Your task to perform on an android device: open app "DoorDash - Dasher" Image 0: 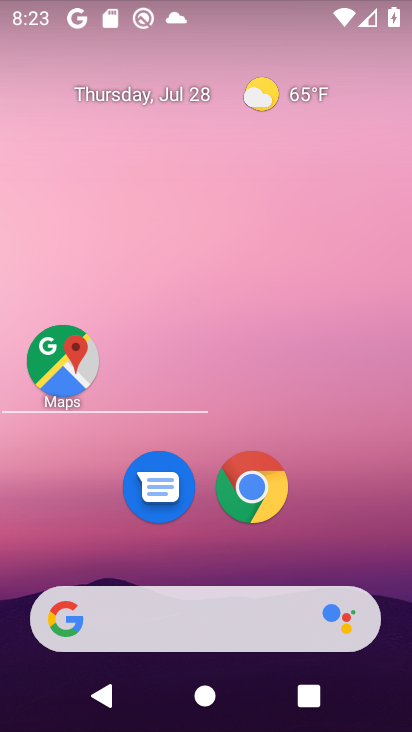
Step 0: drag from (140, 178) to (187, 138)
Your task to perform on an android device: open app "DoorDash - Dasher" Image 1: 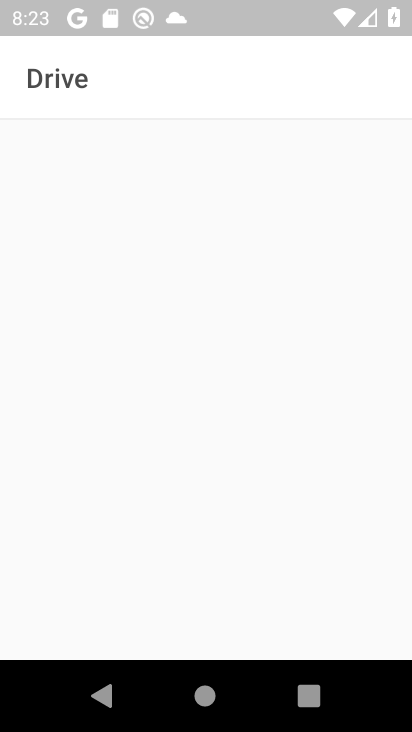
Step 1: drag from (233, 520) to (191, 158)
Your task to perform on an android device: open app "DoorDash - Dasher" Image 2: 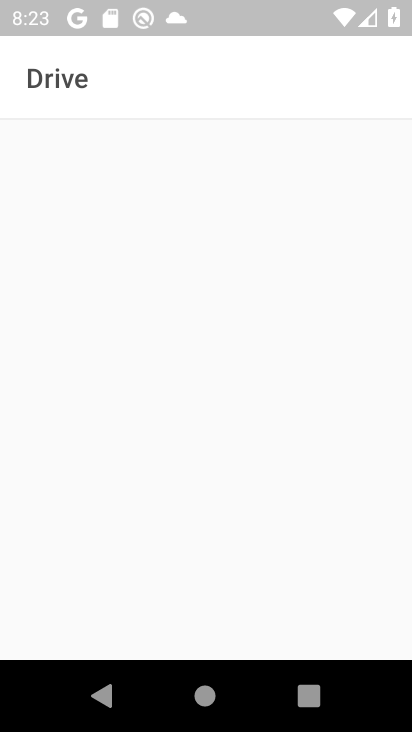
Step 2: press back button
Your task to perform on an android device: open app "DoorDash - Dasher" Image 3: 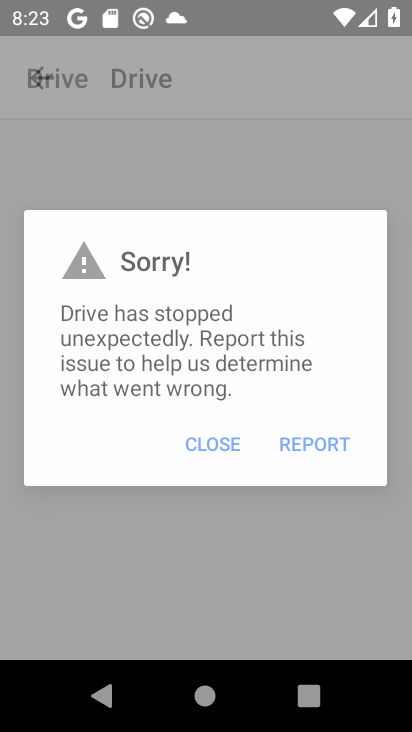
Step 3: press home button
Your task to perform on an android device: open app "DoorDash - Dasher" Image 4: 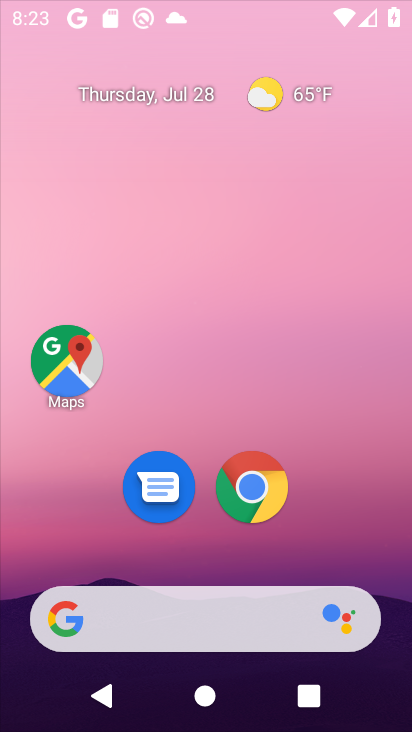
Step 4: click (218, 437)
Your task to perform on an android device: open app "DoorDash - Dasher" Image 5: 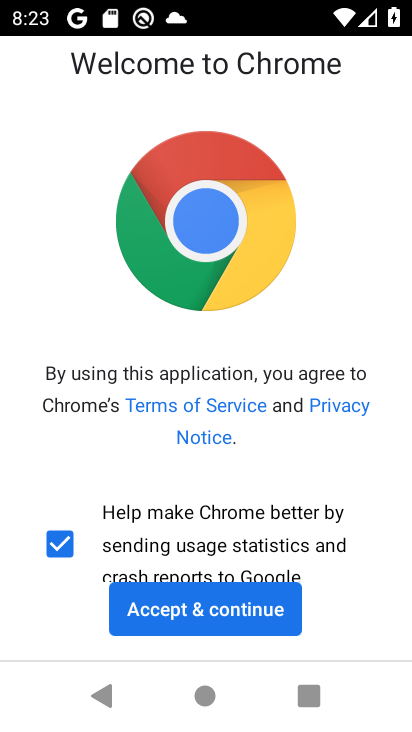
Step 5: click (241, 607)
Your task to perform on an android device: open app "DoorDash - Dasher" Image 6: 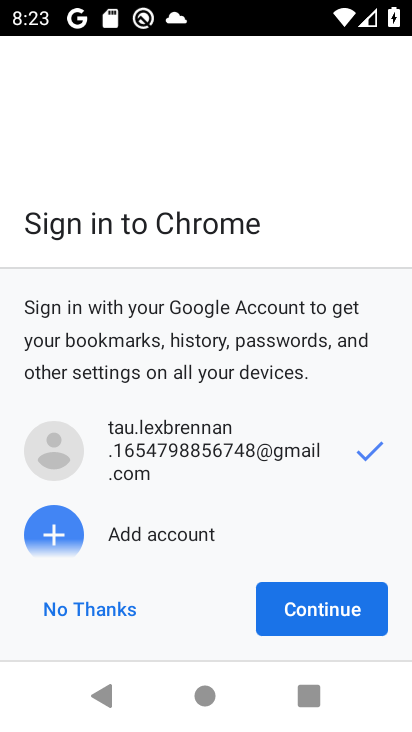
Step 6: click (93, 605)
Your task to perform on an android device: open app "DoorDash - Dasher" Image 7: 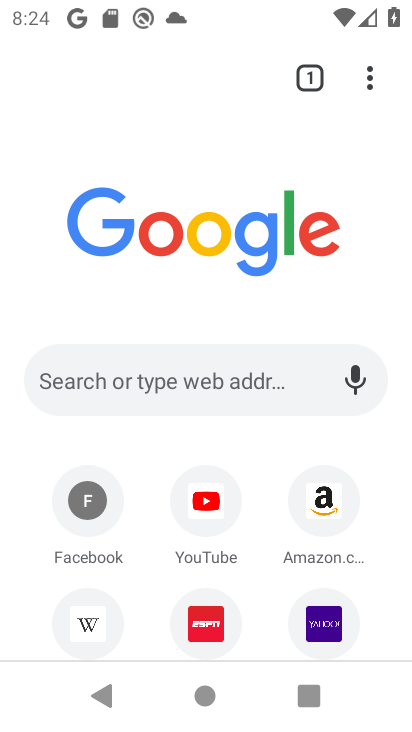
Step 7: click (94, 375)
Your task to perform on an android device: open app "DoorDash - Dasher" Image 8: 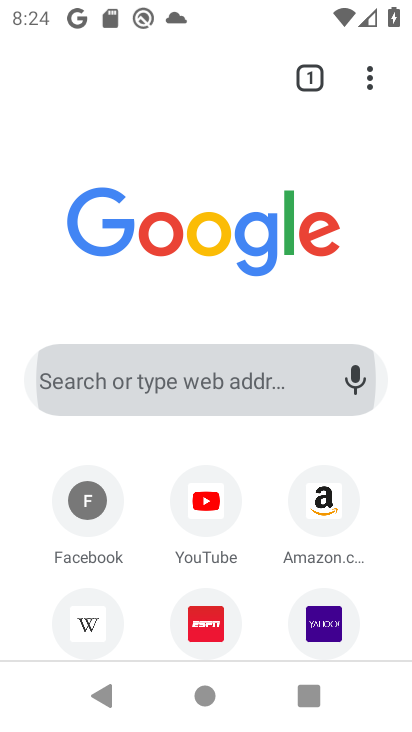
Step 8: click (94, 375)
Your task to perform on an android device: open app "DoorDash - Dasher" Image 9: 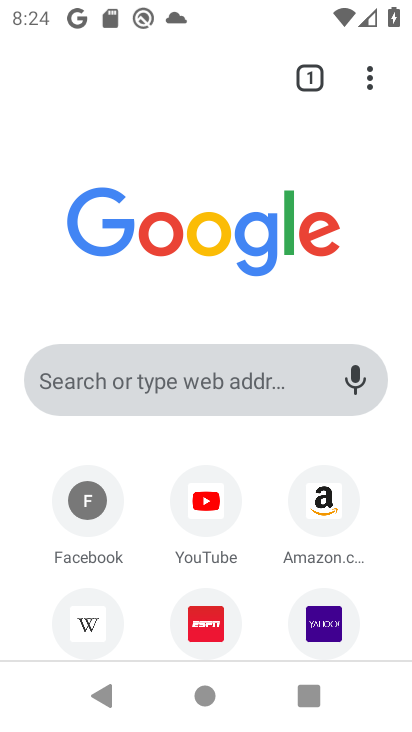
Step 9: click (93, 376)
Your task to perform on an android device: open app "DoorDash - Dasher" Image 10: 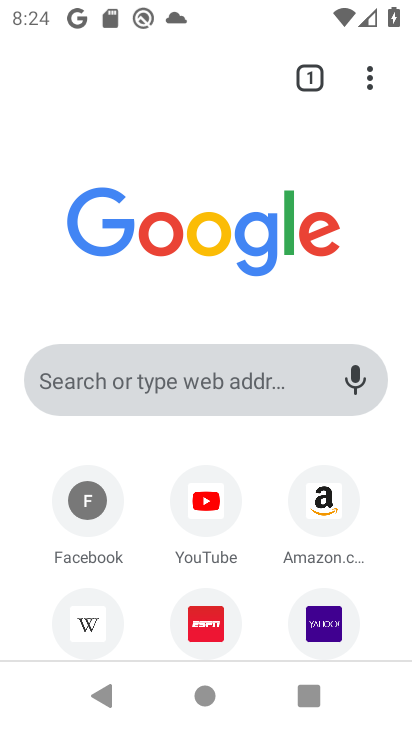
Step 10: click (93, 376)
Your task to perform on an android device: open app "DoorDash - Dasher" Image 11: 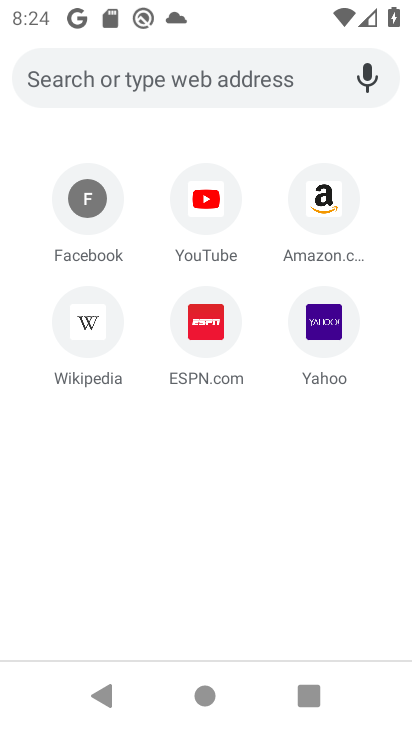
Step 11: click (93, 376)
Your task to perform on an android device: open app "DoorDash - Dasher" Image 12: 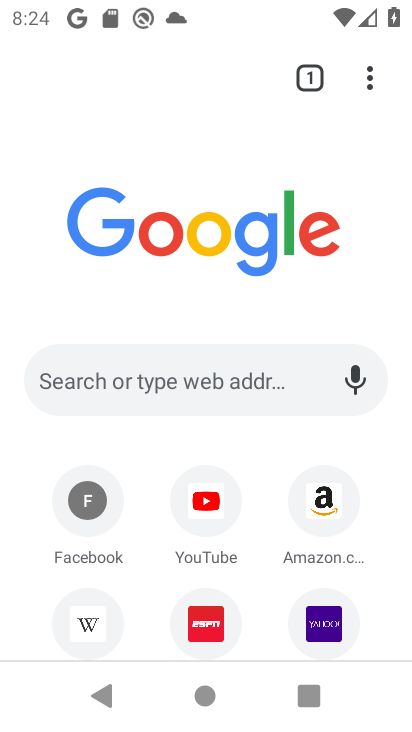
Step 12: click (65, 379)
Your task to perform on an android device: open app "DoorDash - Dasher" Image 13: 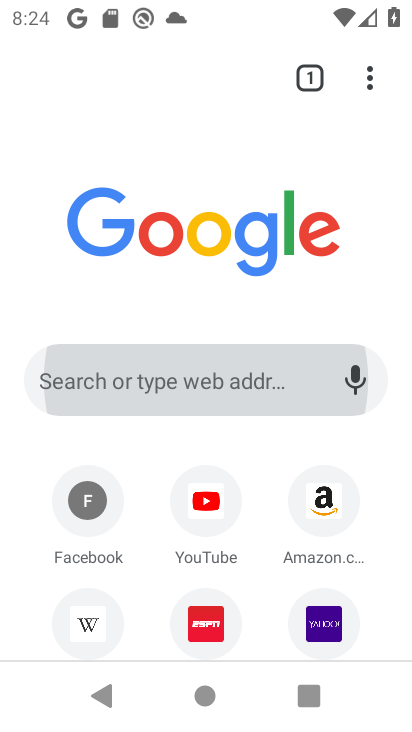
Step 13: click (64, 379)
Your task to perform on an android device: open app "DoorDash - Dasher" Image 14: 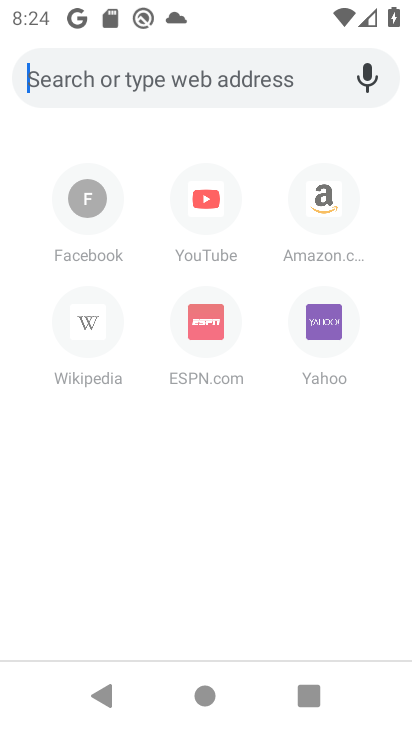
Step 14: click (64, 379)
Your task to perform on an android device: open app "DoorDash - Dasher" Image 15: 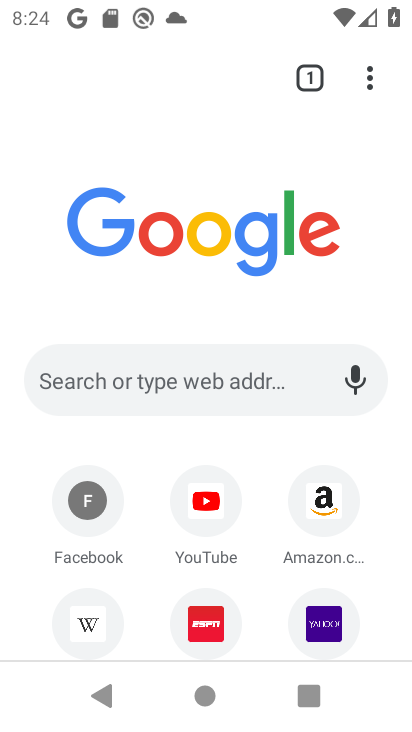
Step 15: click (78, 388)
Your task to perform on an android device: open app "DoorDash - Dasher" Image 16: 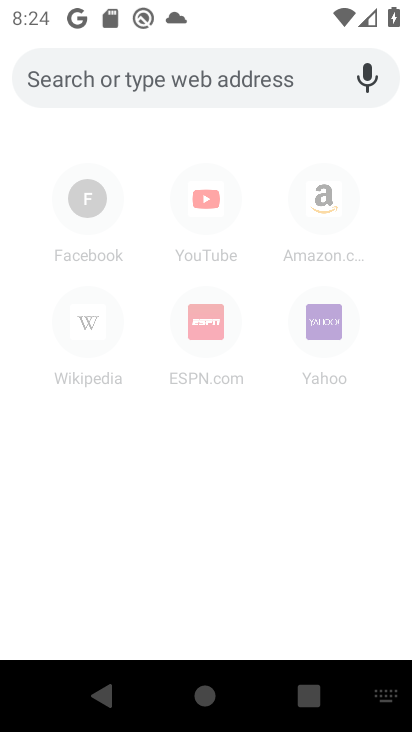
Step 16: type "doordarsh -dasher"
Your task to perform on an android device: open app "DoorDash - Dasher" Image 17: 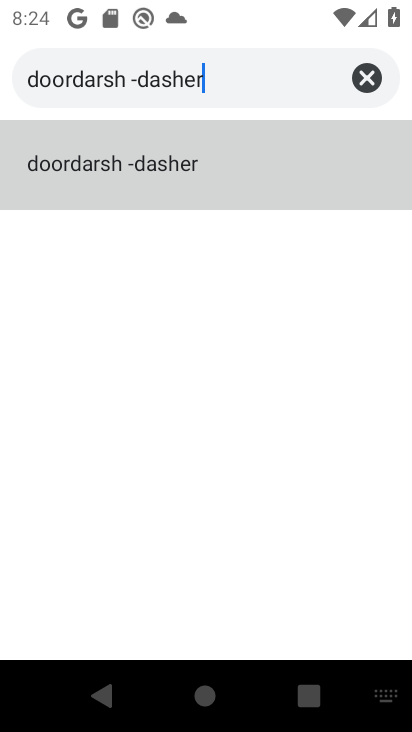
Step 17: click (173, 157)
Your task to perform on an android device: open app "DoorDash - Dasher" Image 18: 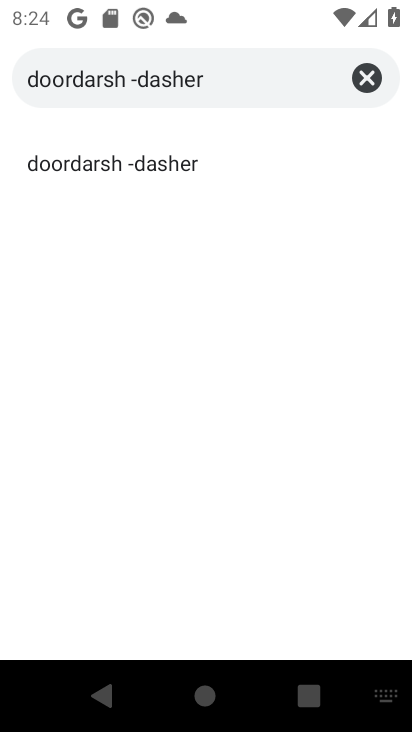
Step 18: click (173, 157)
Your task to perform on an android device: open app "DoorDash - Dasher" Image 19: 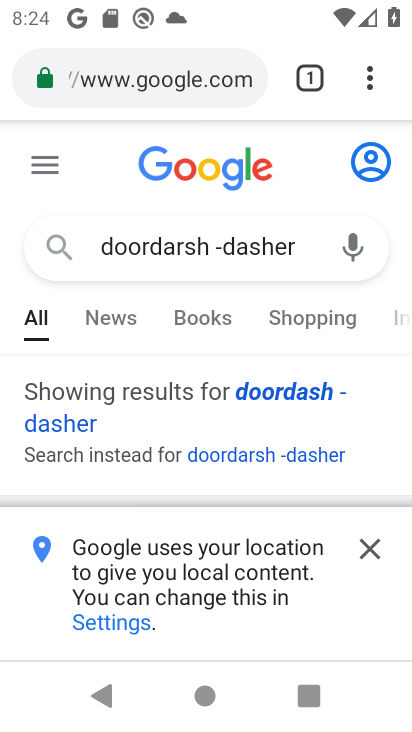
Step 19: click (215, 235)
Your task to perform on an android device: open app "DoorDash - Dasher" Image 20: 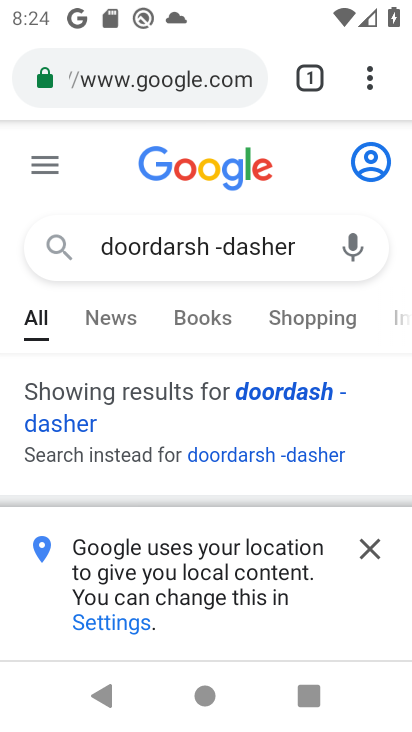
Step 20: click (215, 235)
Your task to perform on an android device: open app "DoorDash - Dasher" Image 21: 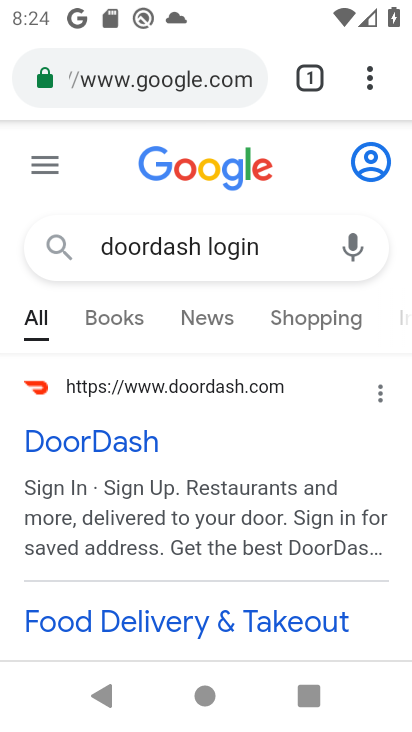
Step 21: task complete